Your task to perform on an android device: Search for pizza restaurants on Maps Image 0: 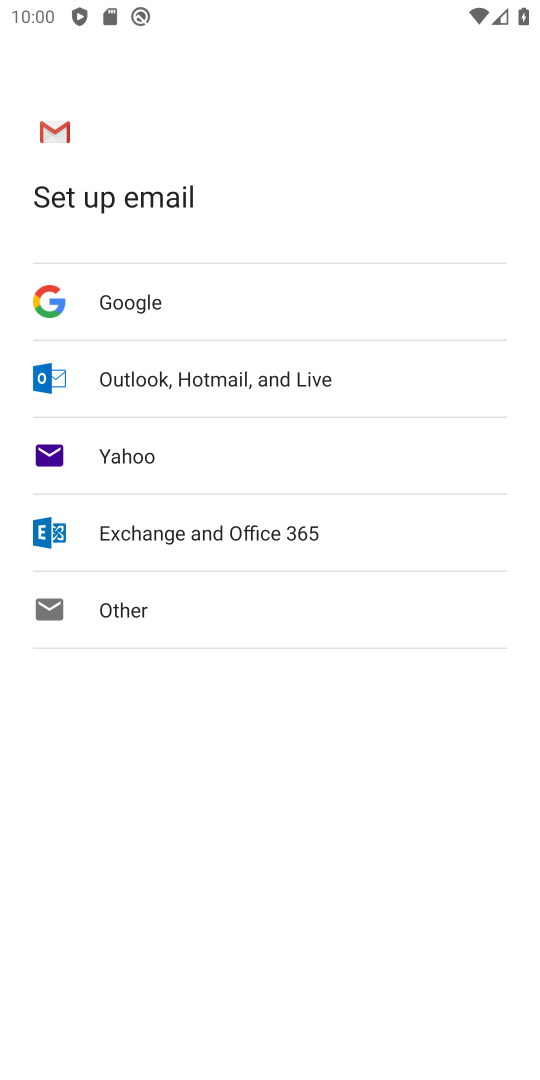
Step 0: press home button
Your task to perform on an android device: Search for pizza restaurants on Maps Image 1: 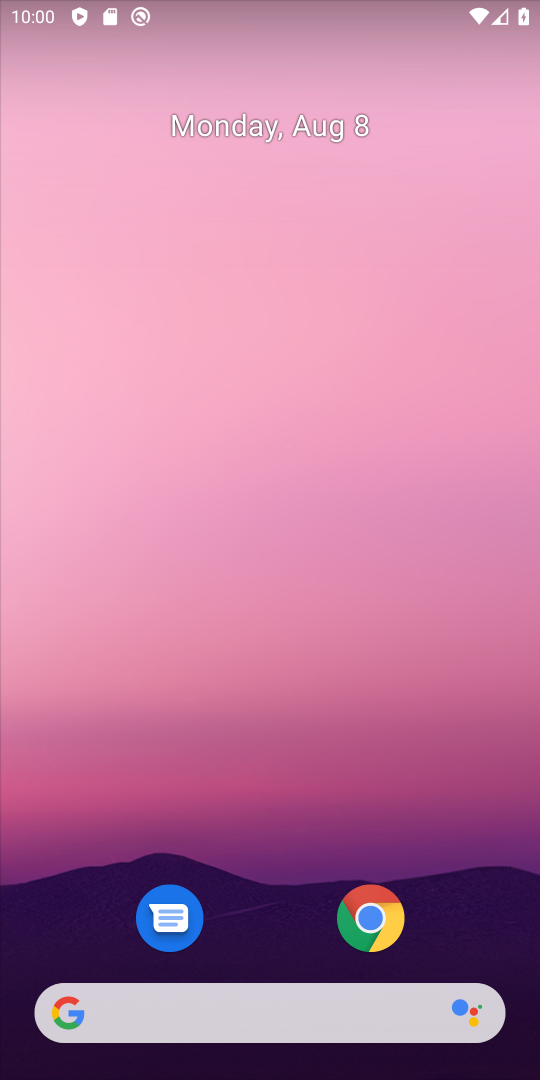
Step 1: drag from (304, 955) to (391, 13)
Your task to perform on an android device: Search for pizza restaurants on Maps Image 2: 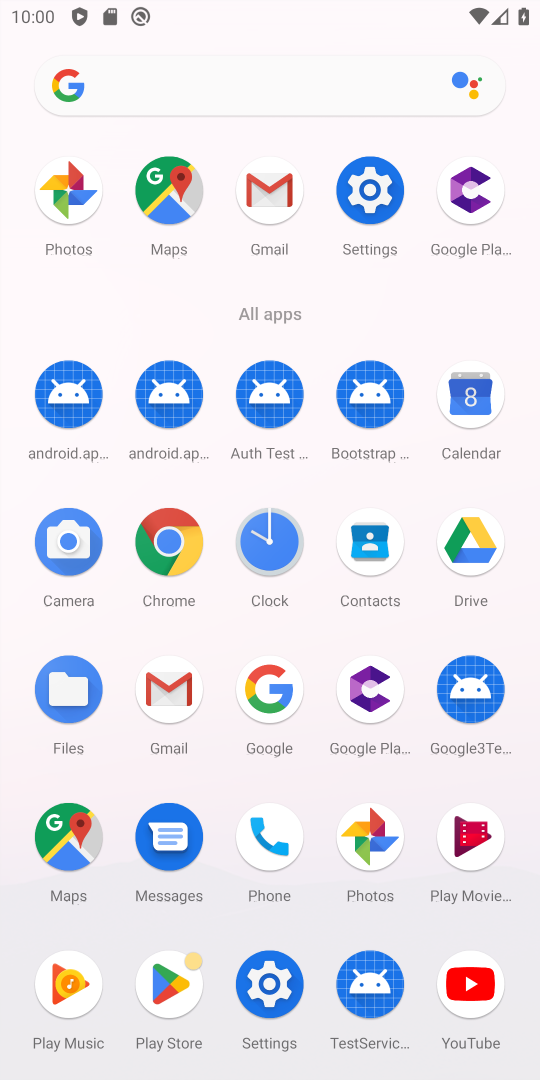
Step 2: click (74, 824)
Your task to perform on an android device: Search for pizza restaurants on Maps Image 3: 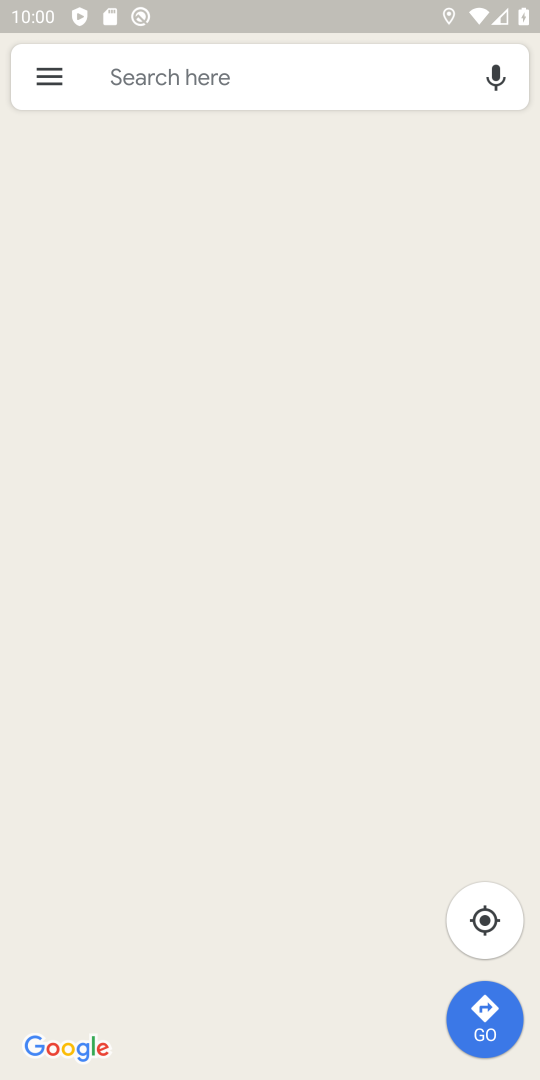
Step 3: click (183, 110)
Your task to perform on an android device: Search for pizza restaurants on Maps Image 4: 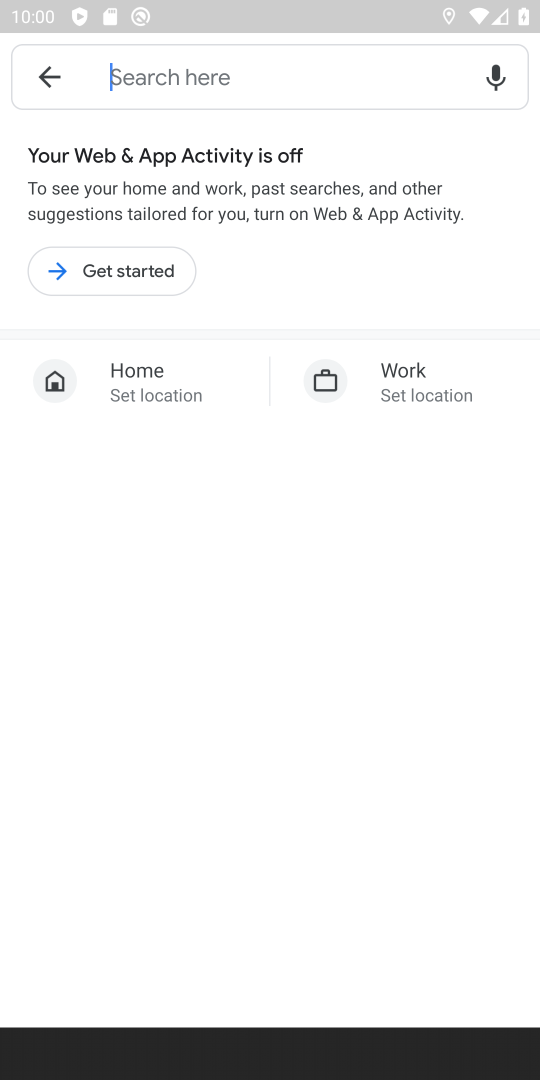
Step 4: click (98, 279)
Your task to perform on an android device: Search for pizza restaurants on Maps Image 5: 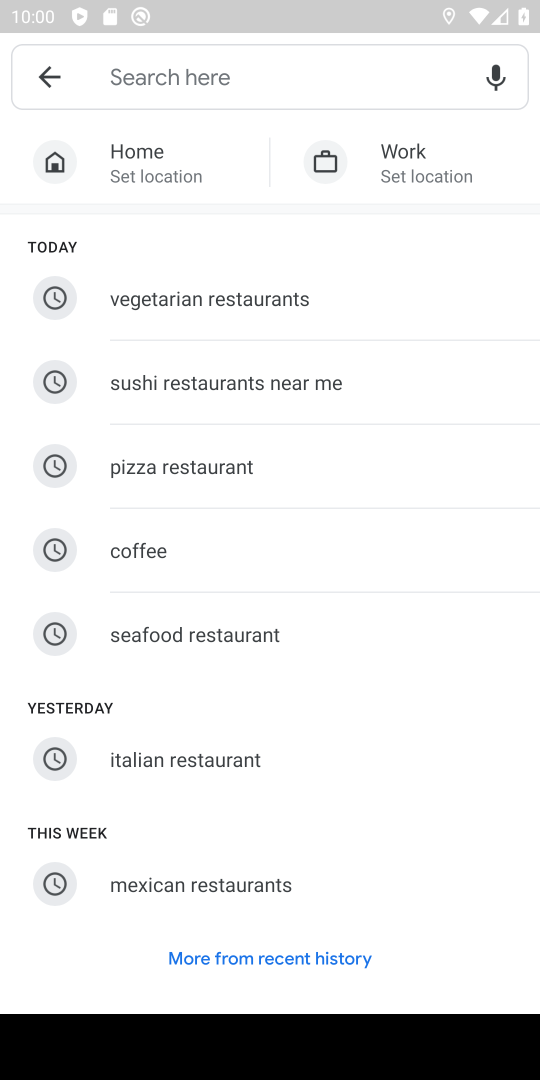
Step 5: click (158, 458)
Your task to perform on an android device: Search for pizza restaurants on Maps Image 6: 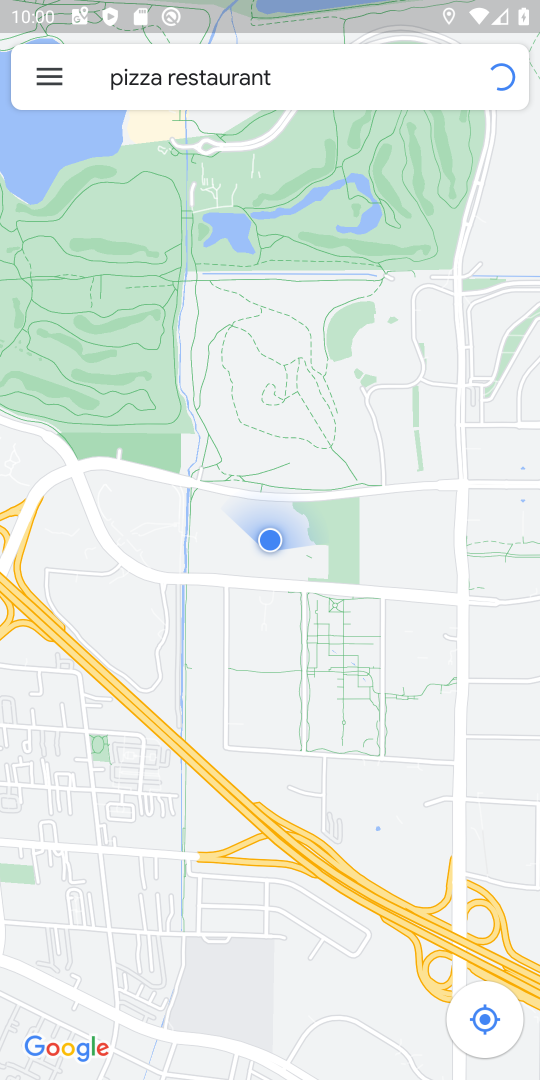
Step 6: task complete